Your task to perform on an android device: move a message to another label in the gmail app Image 0: 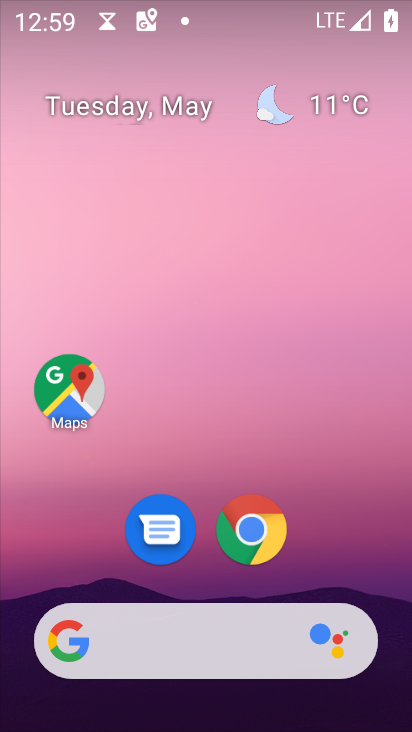
Step 0: drag from (219, 725) to (200, 179)
Your task to perform on an android device: move a message to another label in the gmail app Image 1: 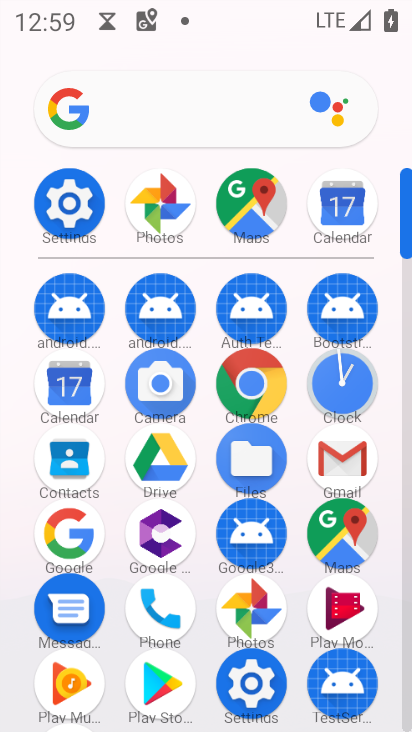
Step 1: click (336, 464)
Your task to perform on an android device: move a message to another label in the gmail app Image 2: 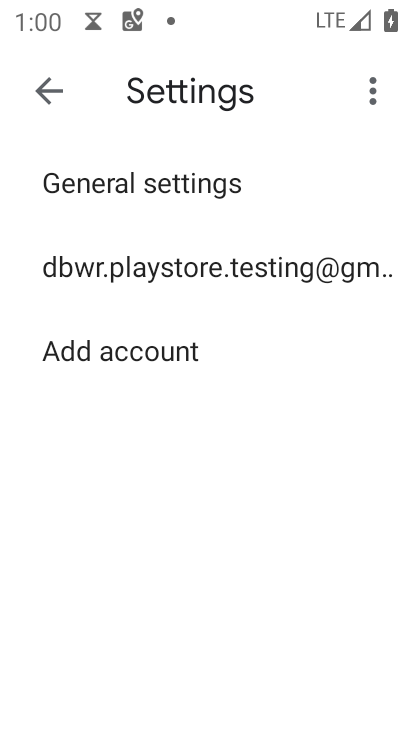
Step 2: click (48, 97)
Your task to perform on an android device: move a message to another label in the gmail app Image 3: 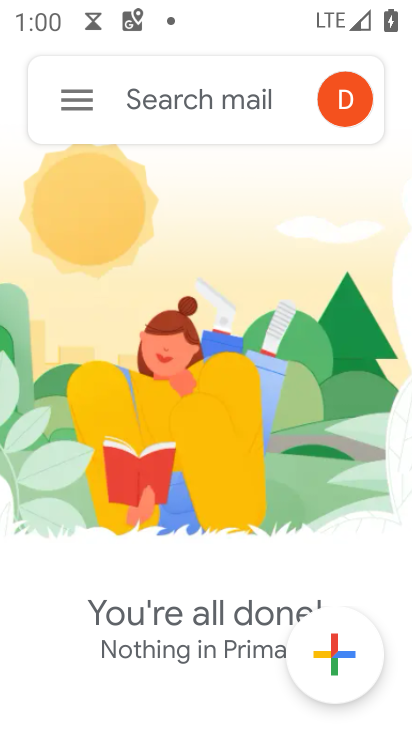
Step 3: task complete